Your task to perform on an android device: Open calendar and show me the third week of next month Image 0: 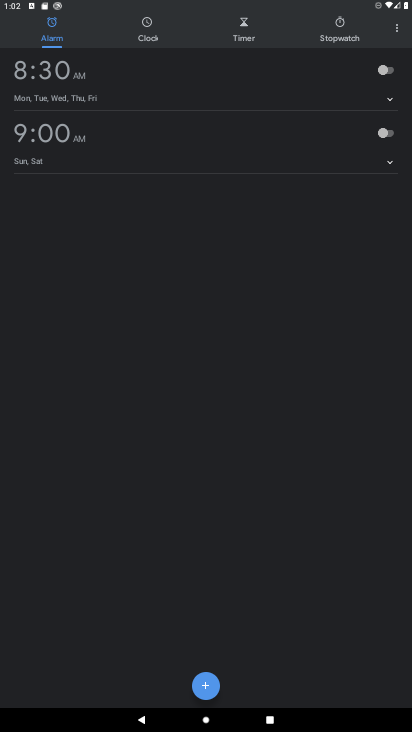
Step 0: press home button
Your task to perform on an android device: Open calendar and show me the third week of next month Image 1: 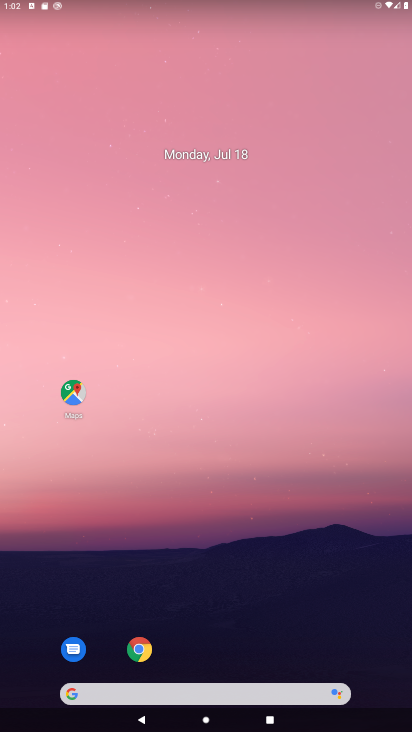
Step 1: drag from (368, 646) to (311, 172)
Your task to perform on an android device: Open calendar and show me the third week of next month Image 2: 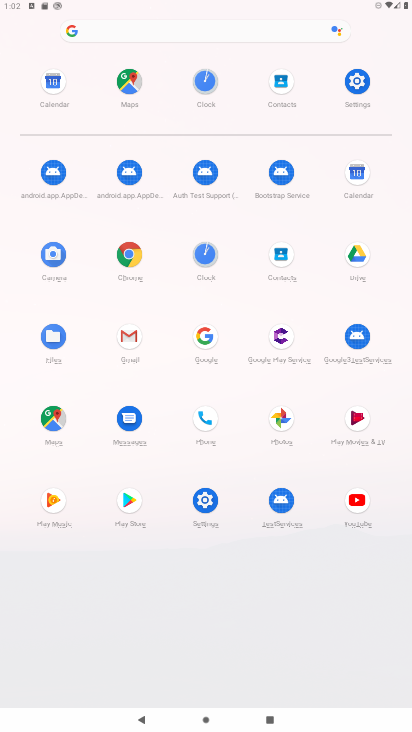
Step 2: click (355, 169)
Your task to perform on an android device: Open calendar and show me the third week of next month Image 3: 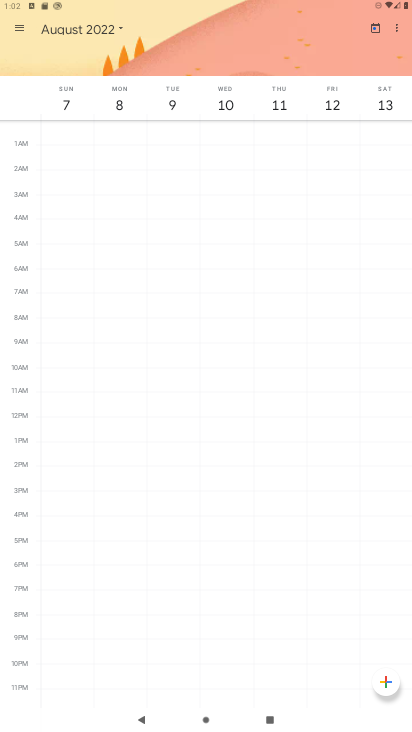
Step 3: click (122, 24)
Your task to perform on an android device: Open calendar and show me the third week of next month Image 4: 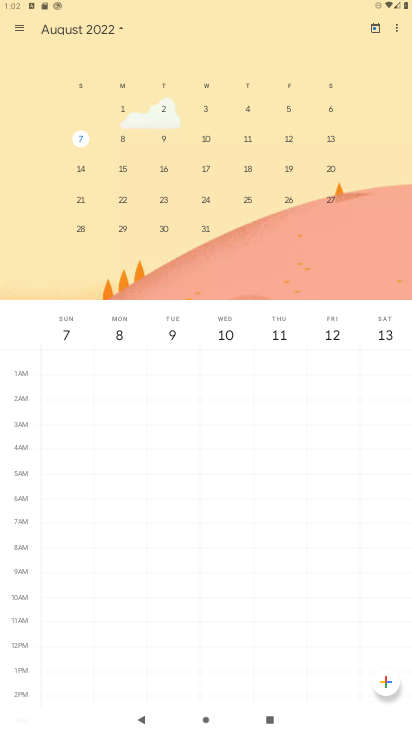
Step 4: click (79, 201)
Your task to perform on an android device: Open calendar and show me the third week of next month Image 5: 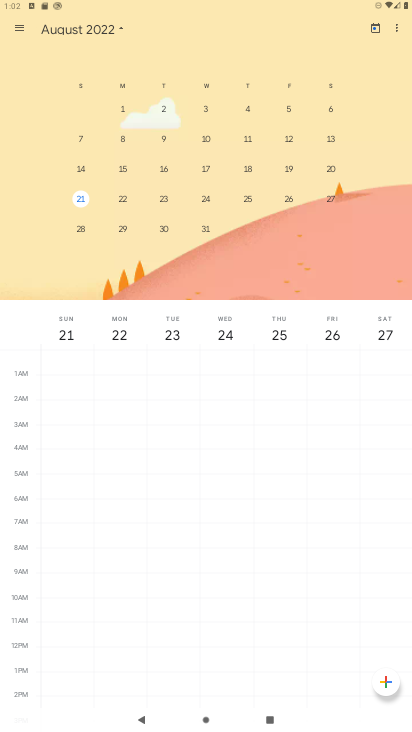
Step 5: task complete